Your task to perform on an android device: show emergency info Image 0: 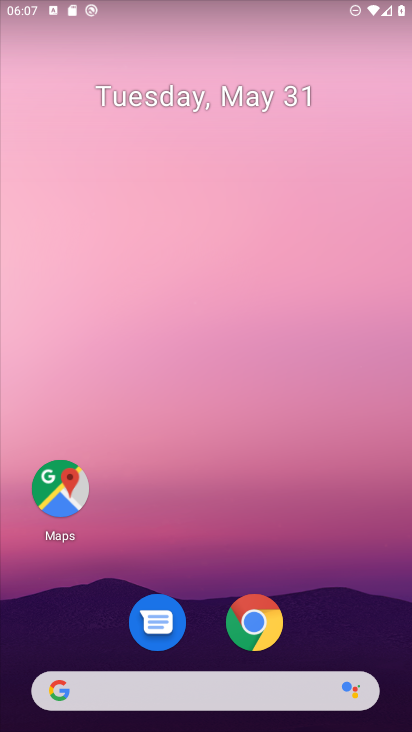
Step 0: drag from (322, 667) to (285, 7)
Your task to perform on an android device: show emergency info Image 1: 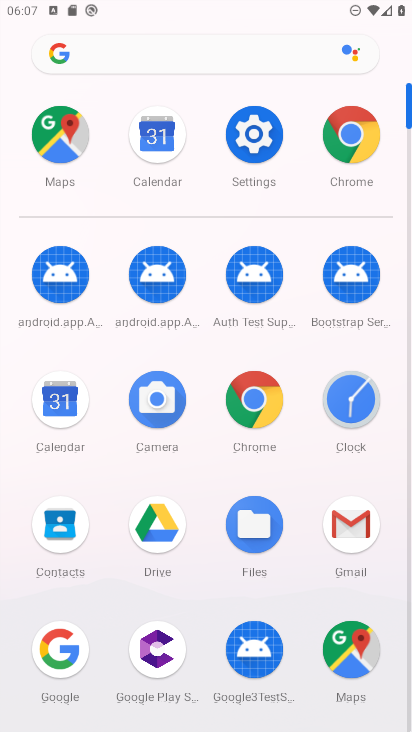
Step 1: click (254, 148)
Your task to perform on an android device: show emergency info Image 2: 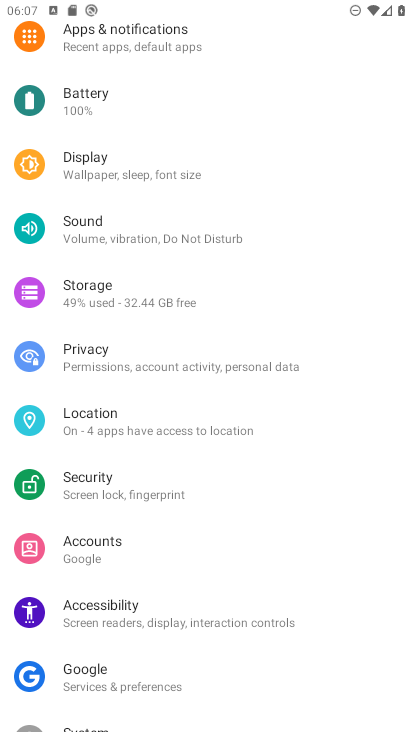
Step 2: drag from (194, 712) to (185, 90)
Your task to perform on an android device: show emergency info Image 3: 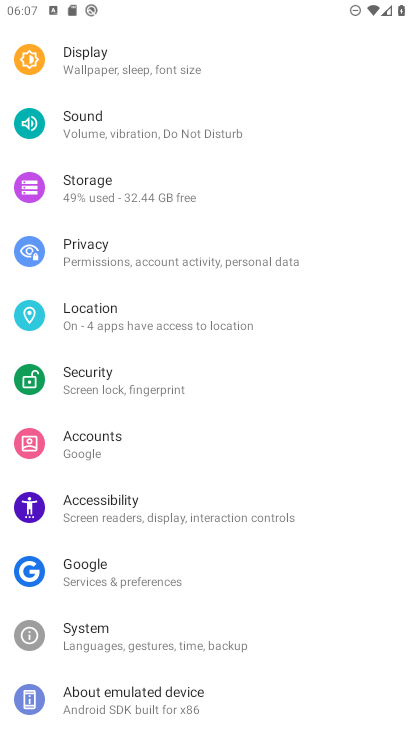
Step 3: click (197, 678)
Your task to perform on an android device: show emergency info Image 4: 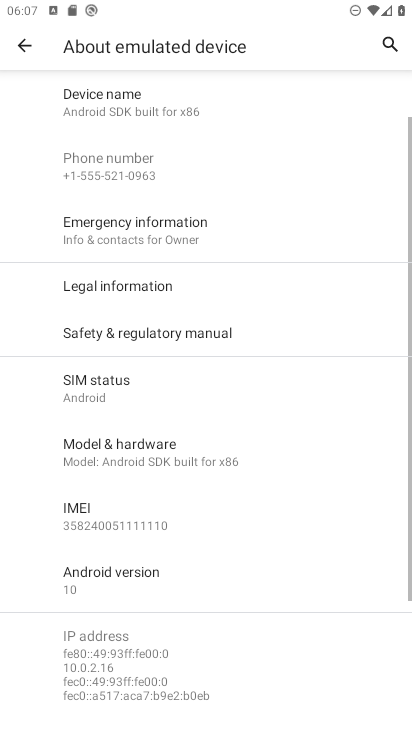
Step 4: click (143, 245)
Your task to perform on an android device: show emergency info Image 5: 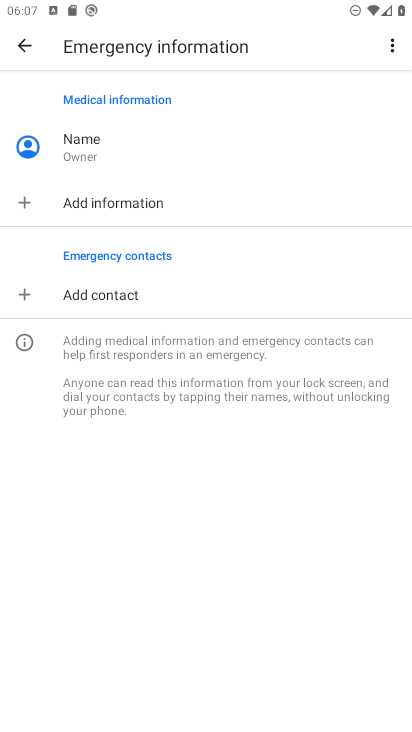
Step 5: task complete